Your task to perform on an android device: What's on the menu at Olive Garden? Image 0: 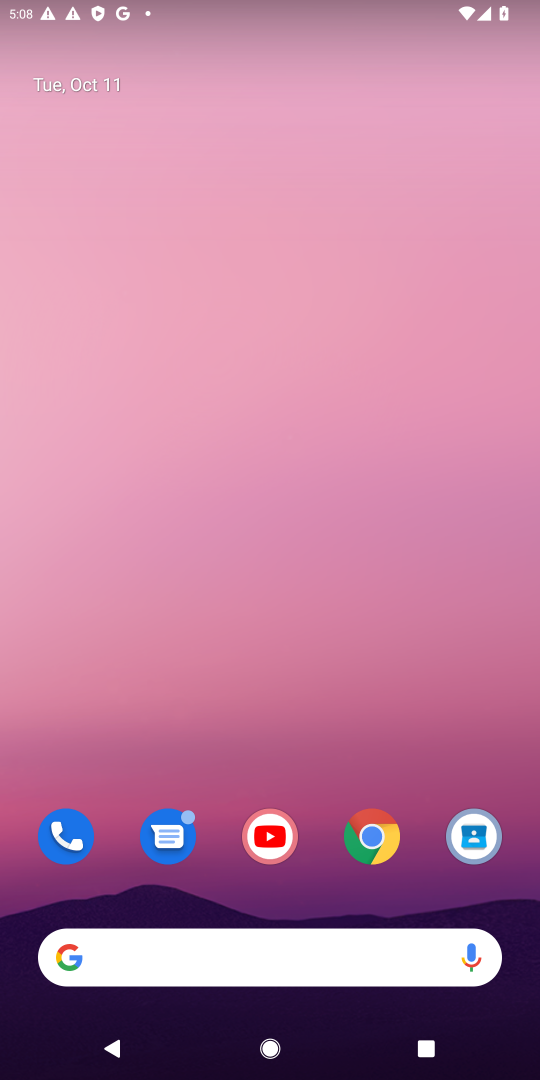
Step 0: click (364, 835)
Your task to perform on an android device: What's on the menu at Olive Garden? Image 1: 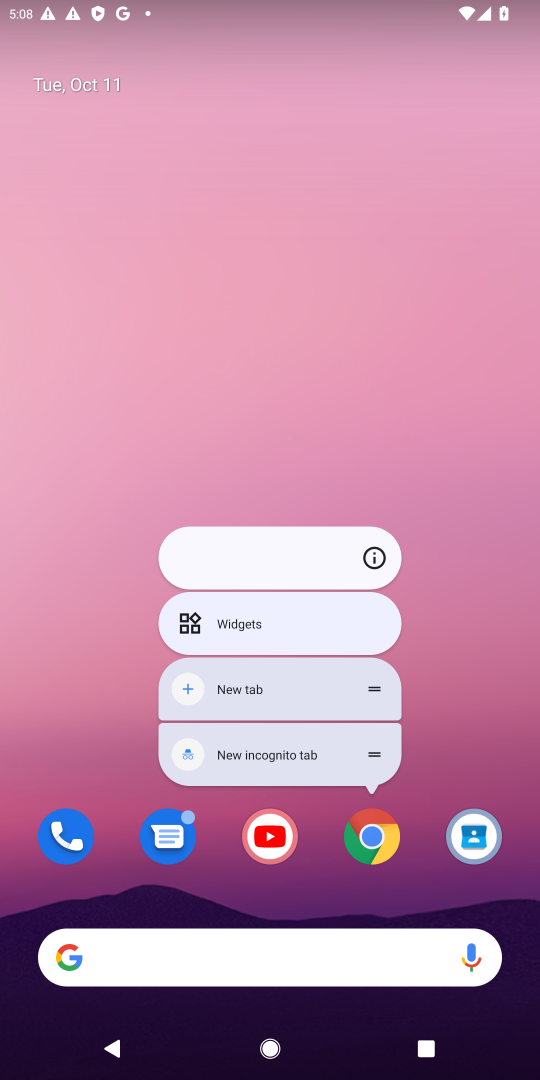
Step 1: click (364, 835)
Your task to perform on an android device: What's on the menu at Olive Garden? Image 2: 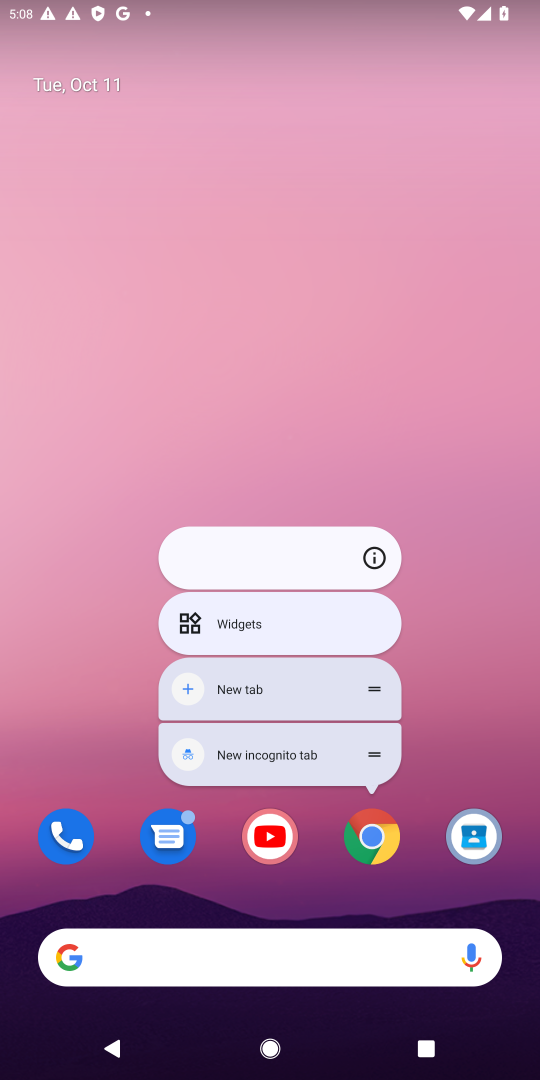
Step 2: click (380, 844)
Your task to perform on an android device: What's on the menu at Olive Garden? Image 3: 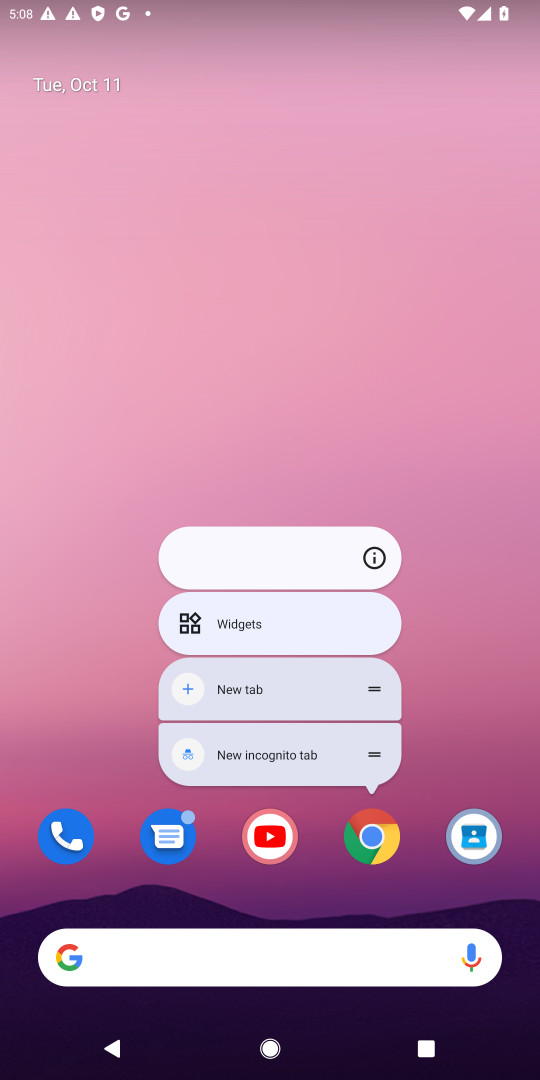
Step 3: click (380, 844)
Your task to perform on an android device: What's on the menu at Olive Garden? Image 4: 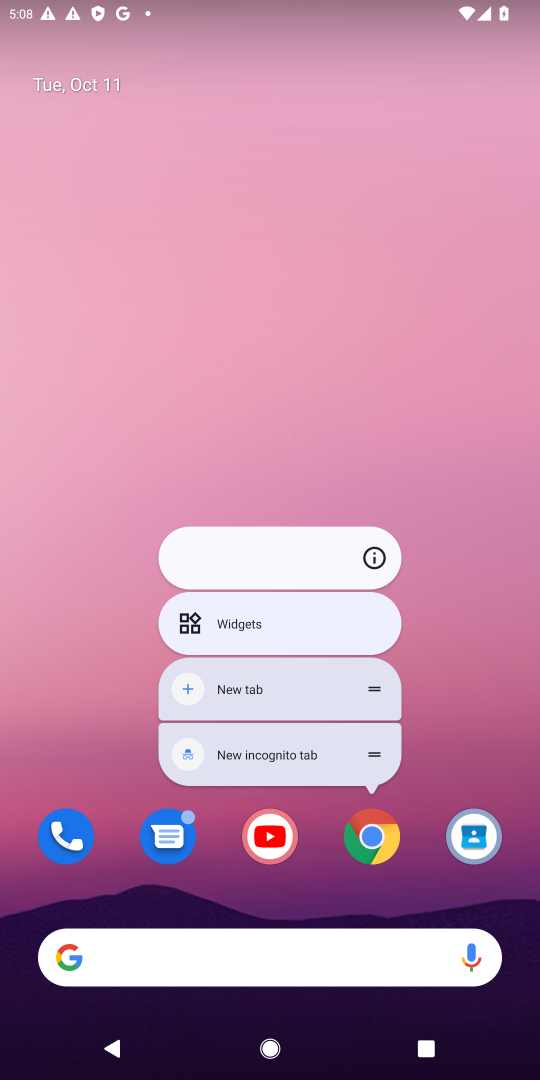
Step 4: click (380, 839)
Your task to perform on an android device: What's on the menu at Olive Garden? Image 5: 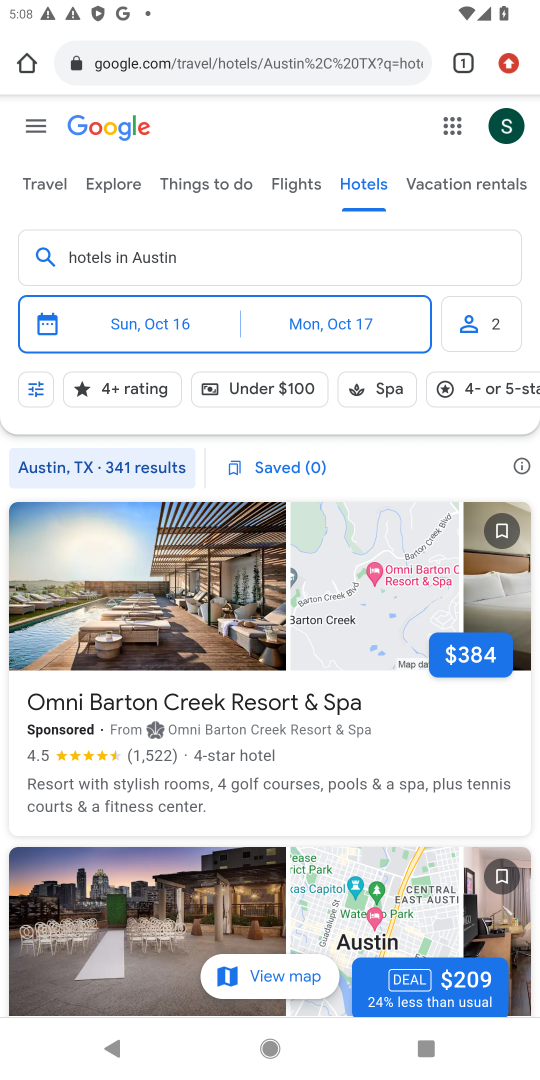
Step 5: click (239, 62)
Your task to perform on an android device: What's on the menu at Olive Garden? Image 6: 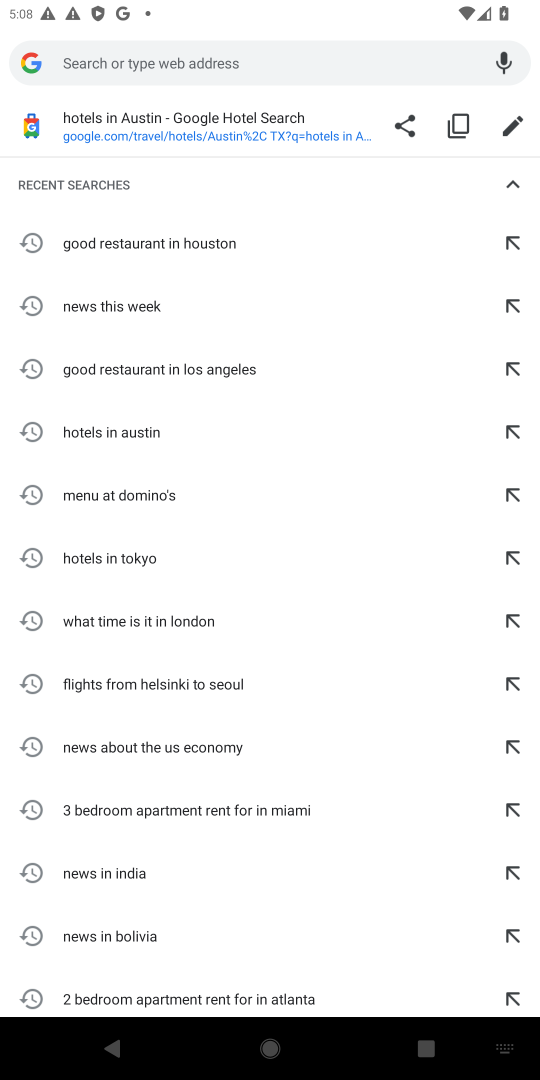
Step 6: type "menu at Olive Garden"
Your task to perform on an android device: What's on the menu at Olive Garden? Image 7: 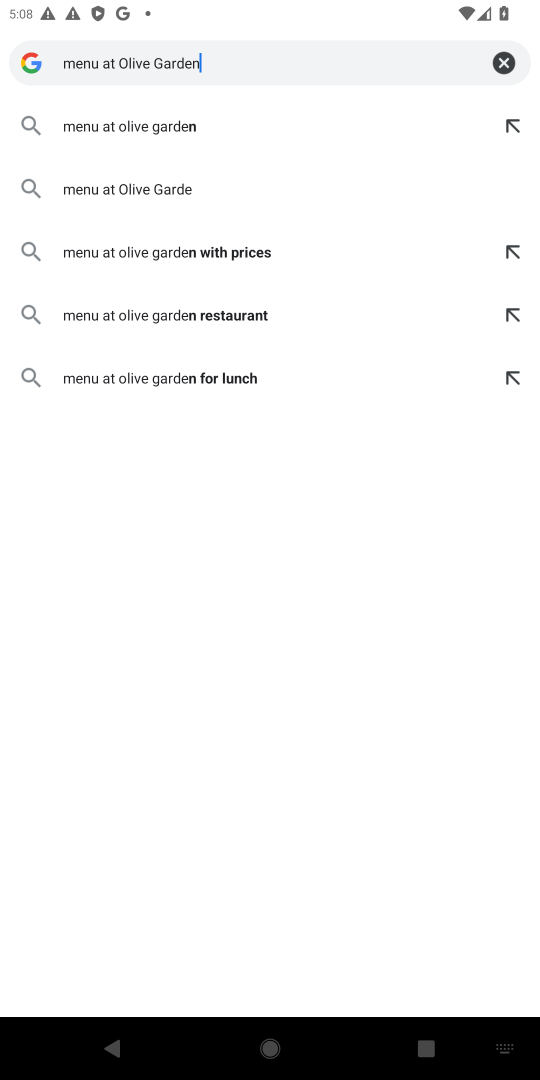
Step 7: press enter
Your task to perform on an android device: What's on the menu at Olive Garden? Image 8: 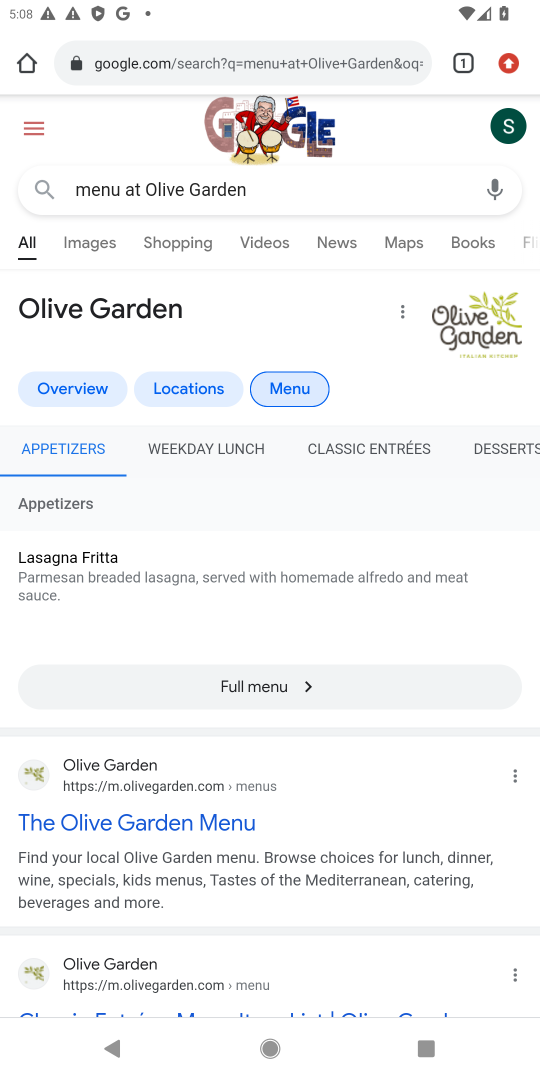
Step 8: drag from (249, 743) to (327, 351)
Your task to perform on an android device: What's on the menu at Olive Garden? Image 9: 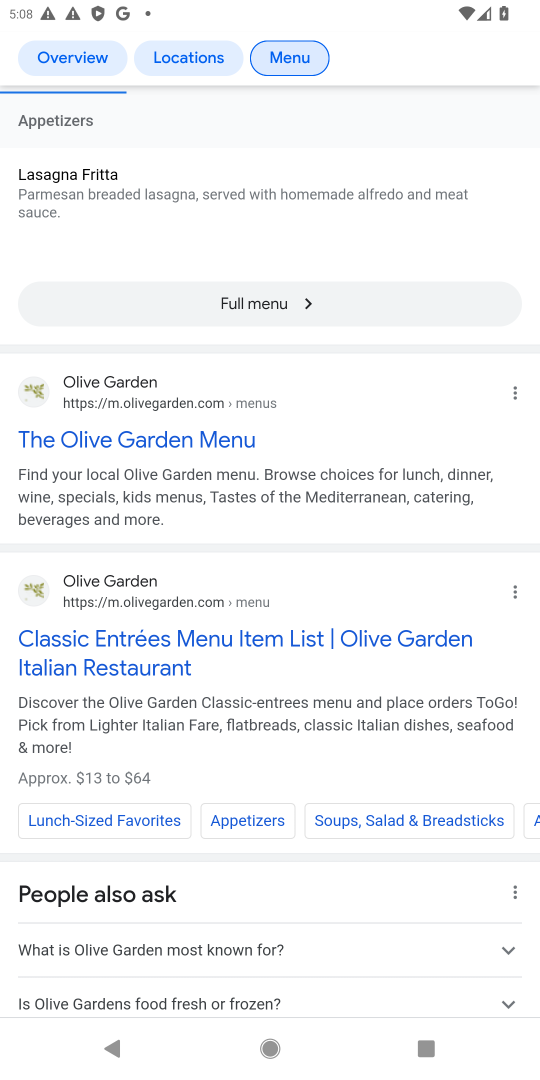
Step 9: click (135, 436)
Your task to perform on an android device: What's on the menu at Olive Garden? Image 10: 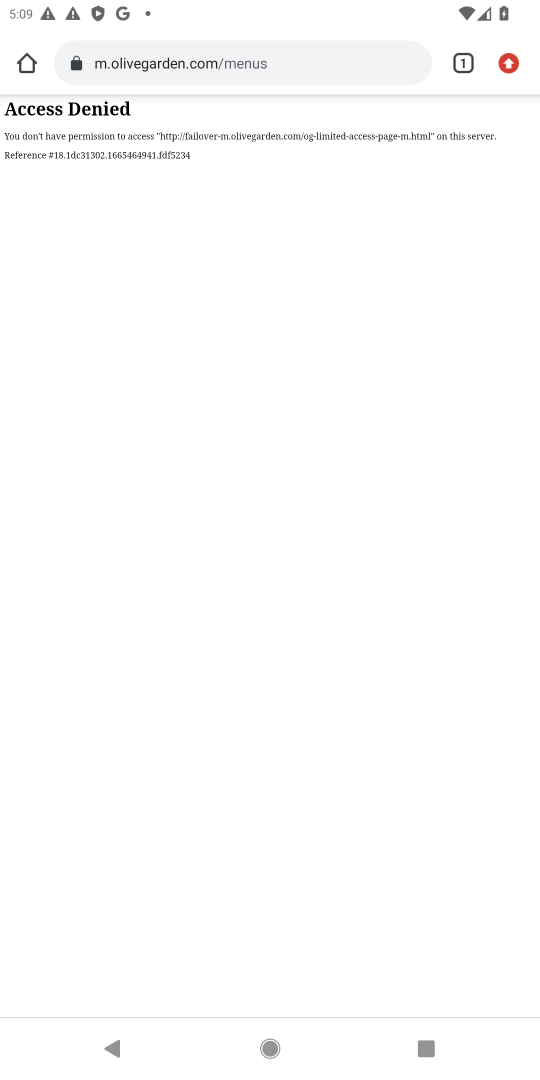
Step 10: press back button
Your task to perform on an android device: What's on the menu at Olive Garden? Image 11: 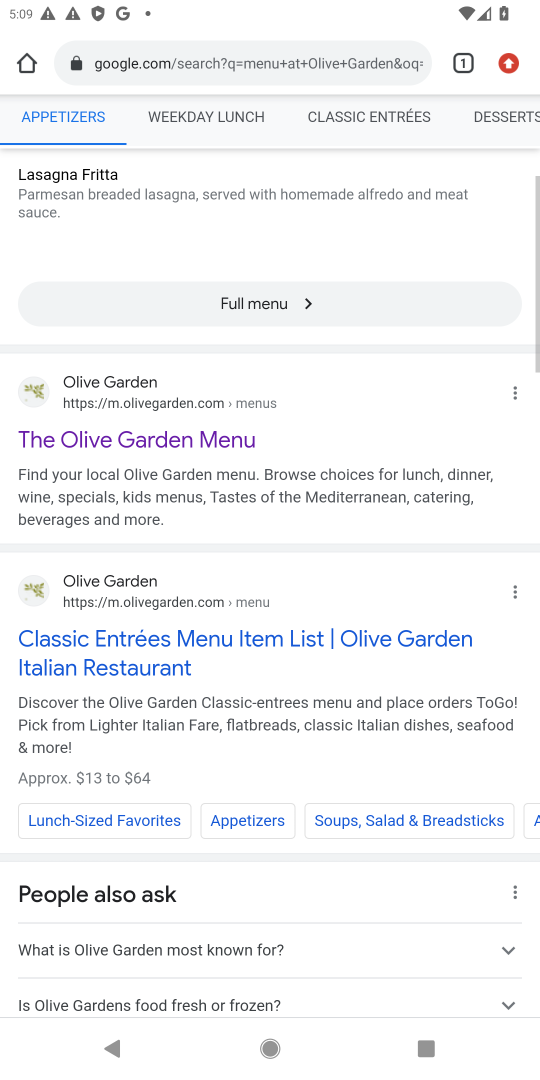
Step 11: drag from (202, 777) to (202, 617)
Your task to perform on an android device: What's on the menu at Olive Garden? Image 12: 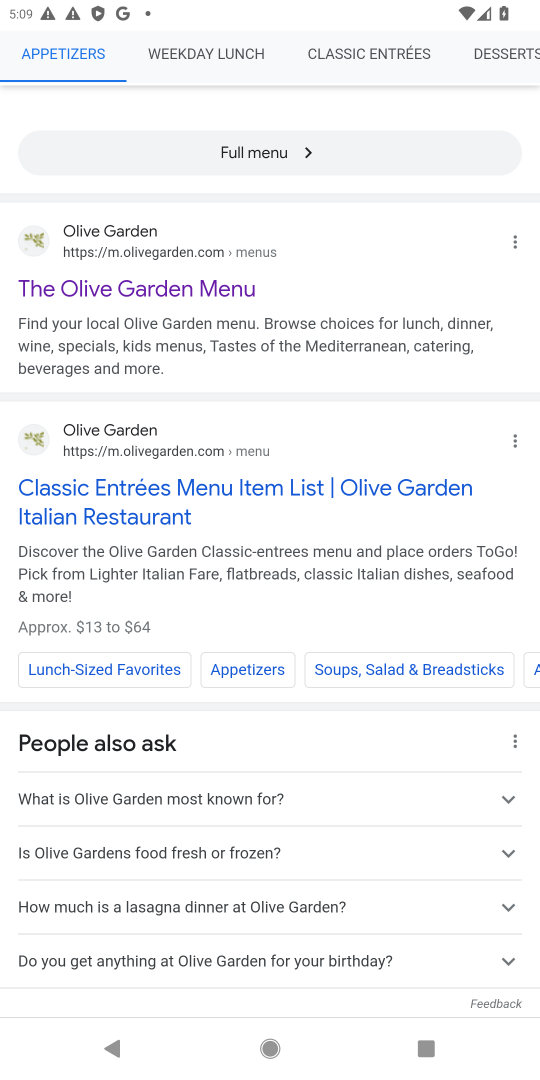
Step 12: click (214, 490)
Your task to perform on an android device: What's on the menu at Olive Garden? Image 13: 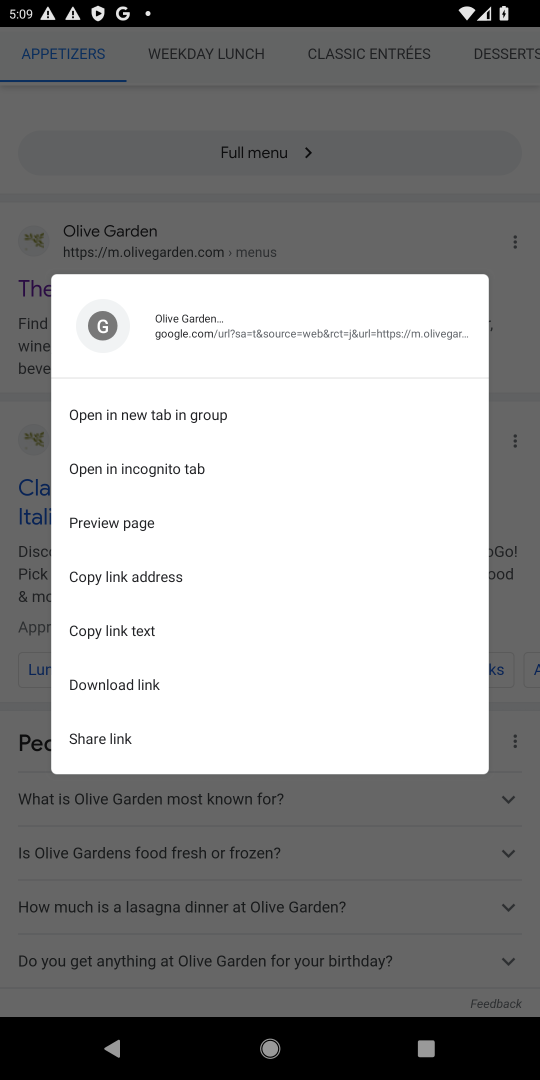
Step 13: click (185, 805)
Your task to perform on an android device: What's on the menu at Olive Garden? Image 14: 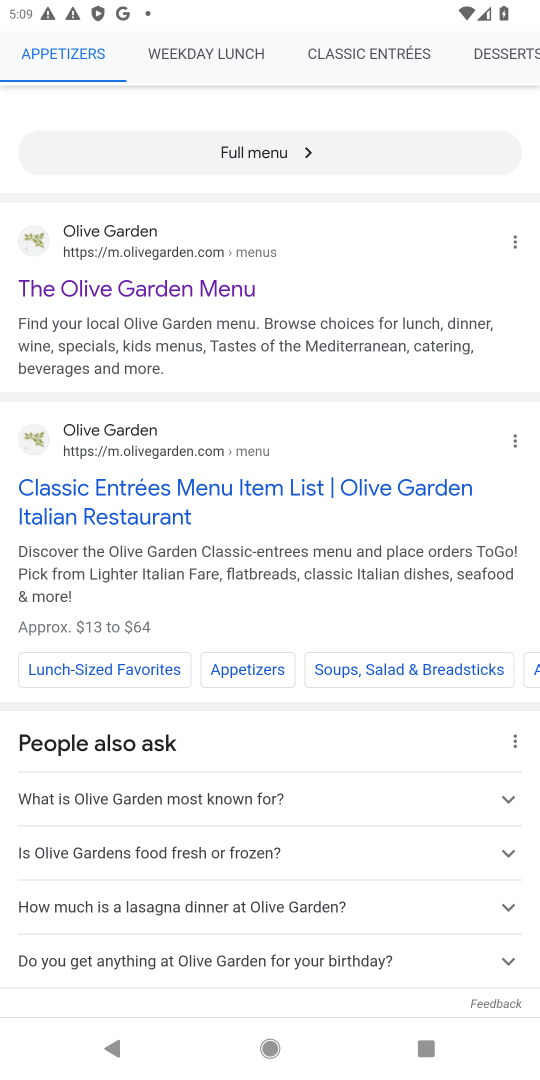
Step 14: click (101, 491)
Your task to perform on an android device: What's on the menu at Olive Garden? Image 15: 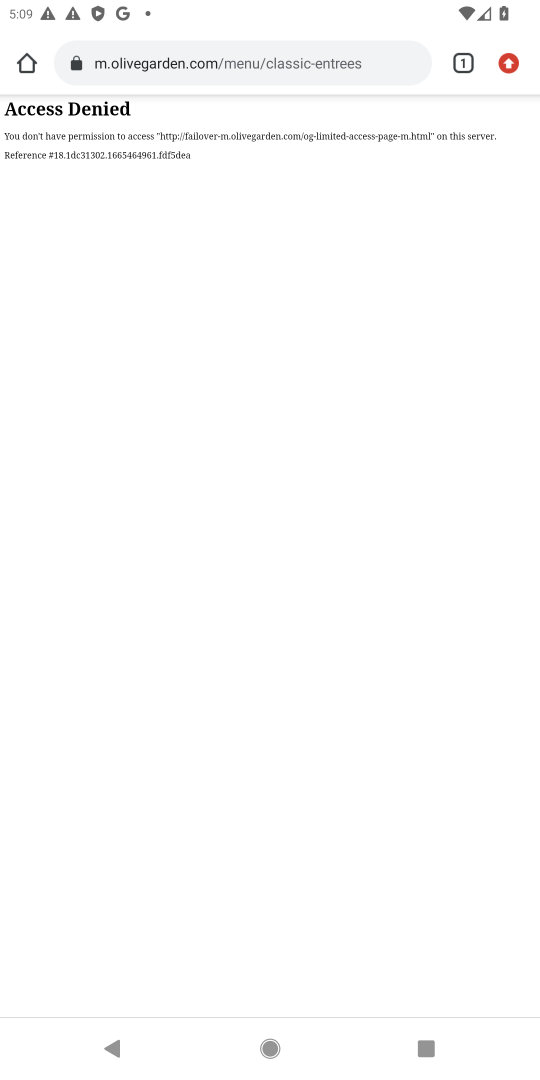
Step 15: task complete